Your task to perform on an android device: turn on improve location accuracy Image 0: 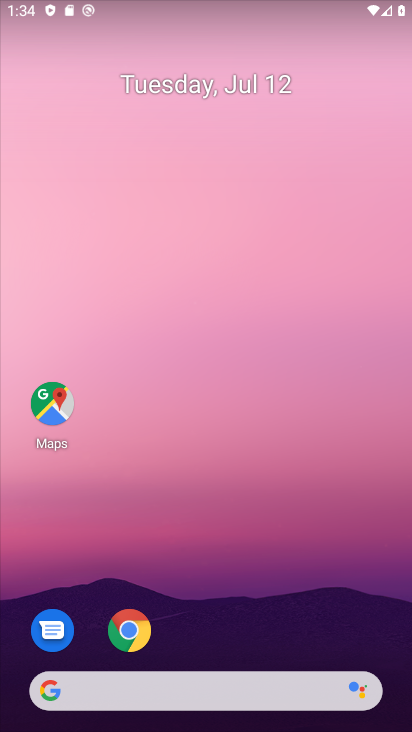
Step 0: drag from (383, 716) to (281, 59)
Your task to perform on an android device: turn on improve location accuracy Image 1: 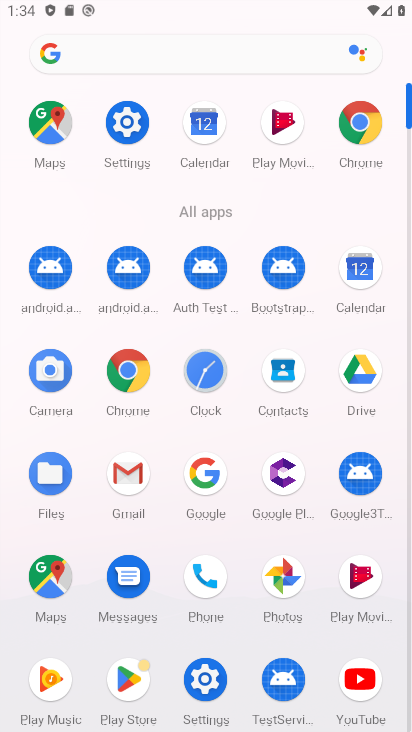
Step 1: click (199, 678)
Your task to perform on an android device: turn on improve location accuracy Image 2: 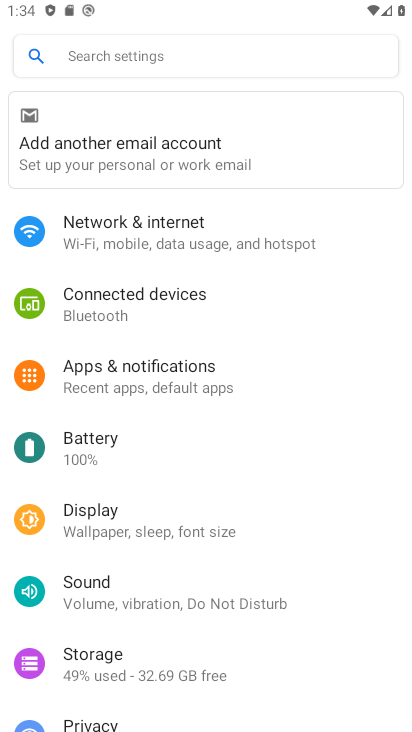
Step 2: drag from (294, 658) to (288, 277)
Your task to perform on an android device: turn on improve location accuracy Image 3: 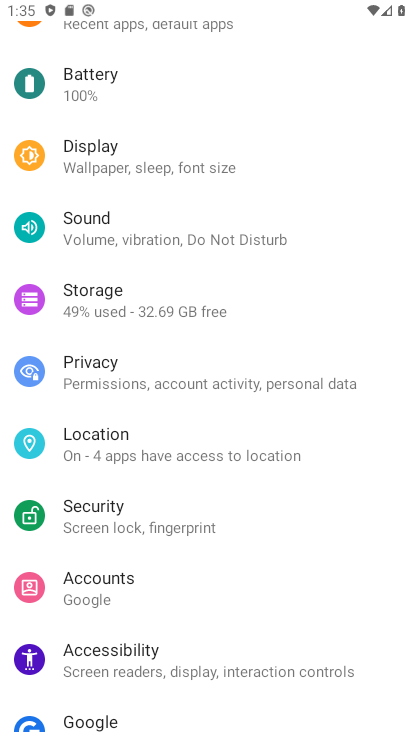
Step 3: click (112, 441)
Your task to perform on an android device: turn on improve location accuracy Image 4: 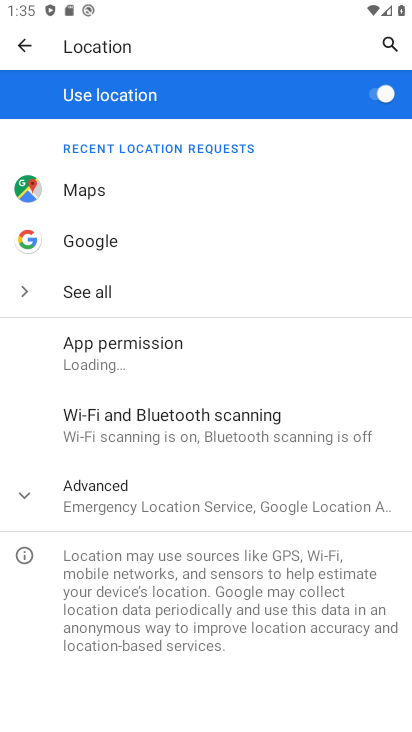
Step 4: click (15, 512)
Your task to perform on an android device: turn on improve location accuracy Image 5: 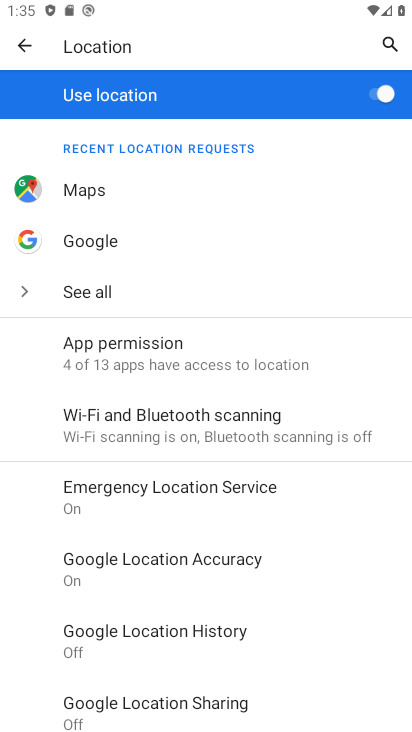
Step 5: click (164, 563)
Your task to perform on an android device: turn on improve location accuracy Image 6: 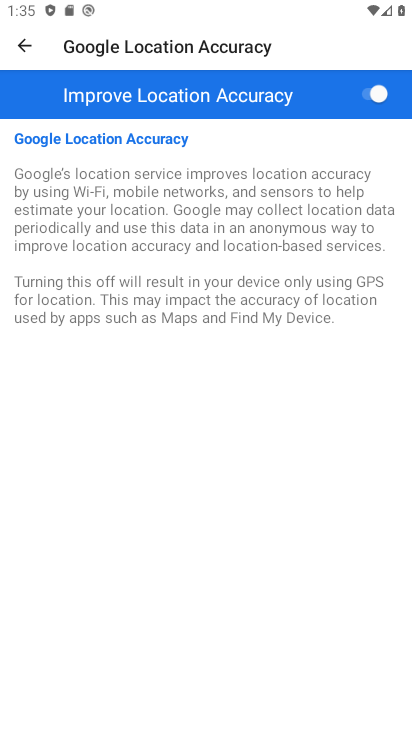
Step 6: task complete